Your task to perform on an android device: Show me popular games on the Play Store Image 0: 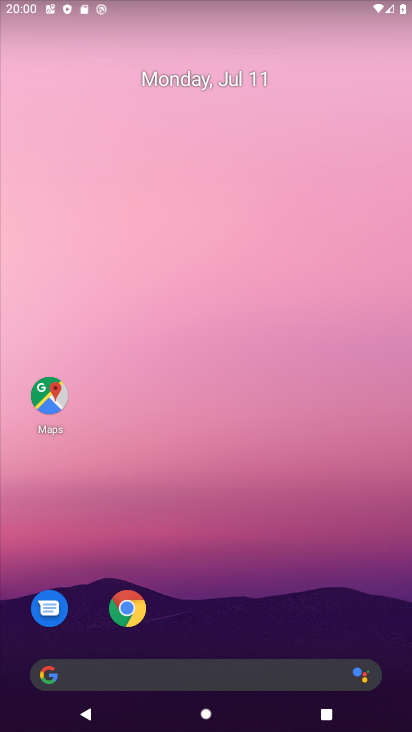
Step 0: drag from (246, 633) to (186, 99)
Your task to perform on an android device: Show me popular games on the Play Store Image 1: 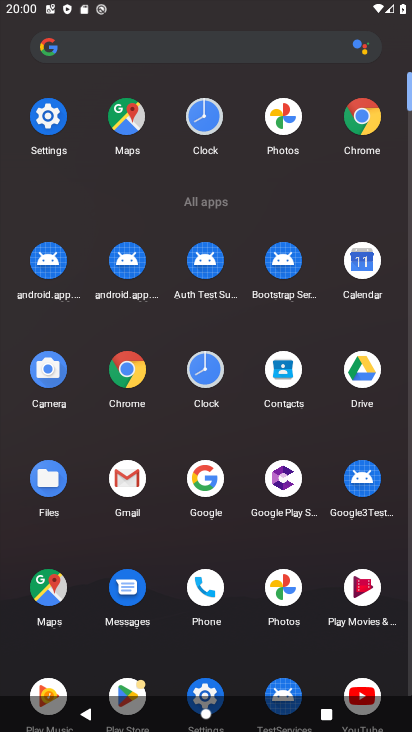
Step 1: click (121, 684)
Your task to perform on an android device: Show me popular games on the Play Store Image 2: 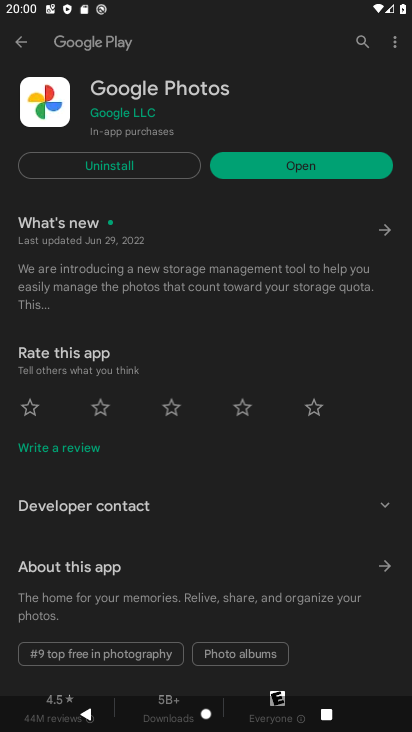
Step 2: task complete